Your task to perform on an android device: open device folders in google photos Image 0: 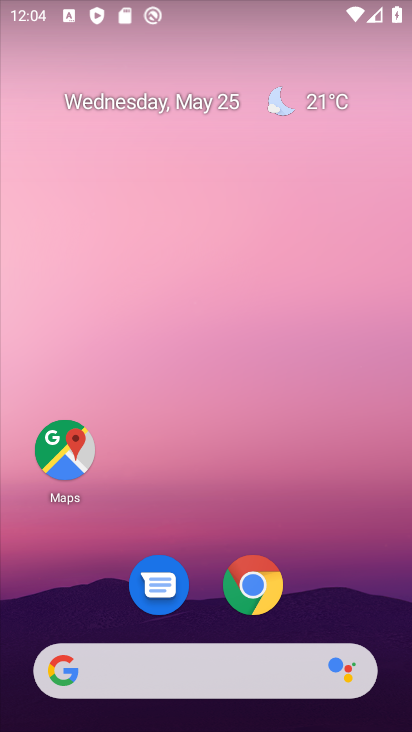
Step 0: drag from (208, 508) to (240, 3)
Your task to perform on an android device: open device folders in google photos Image 1: 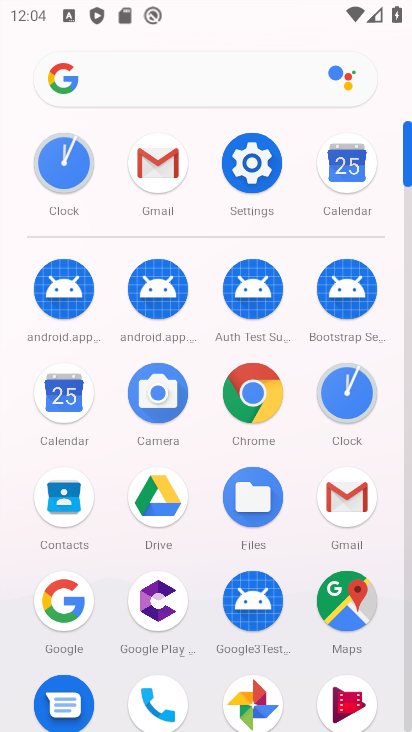
Step 1: drag from (289, 550) to (310, 315)
Your task to perform on an android device: open device folders in google photos Image 2: 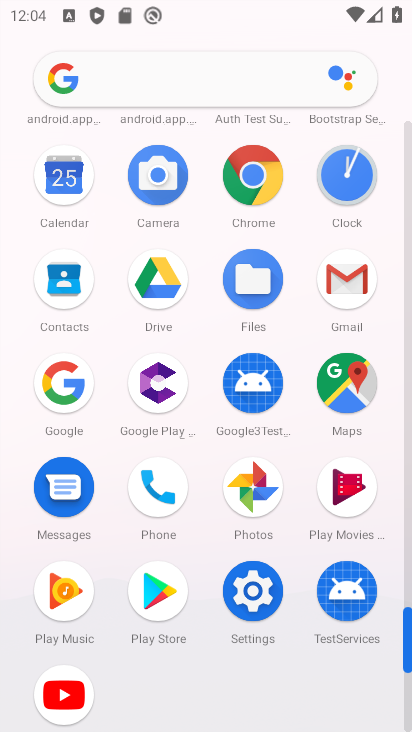
Step 2: click (267, 469)
Your task to perform on an android device: open device folders in google photos Image 3: 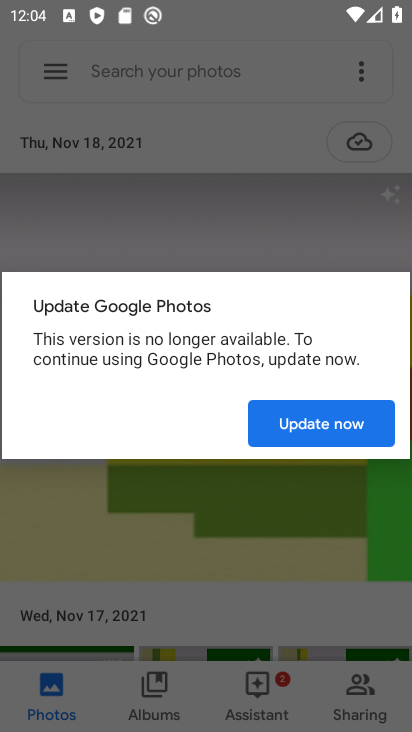
Step 3: click (292, 421)
Your task to perform on an android device: open device folders in google photos Image 4: 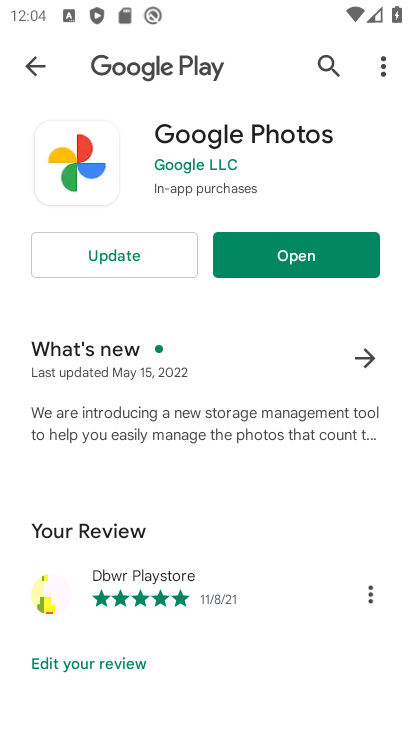
Step 4: click (318, 260)
Your task to perform on an android device: open device folders in google photos Image 5: 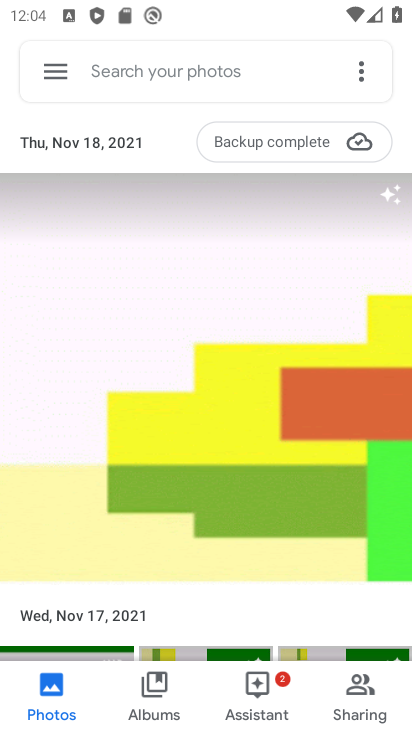
Step 5: click (59, 61)
Your task to perform on an android device: open device folders in google photos Image 6: 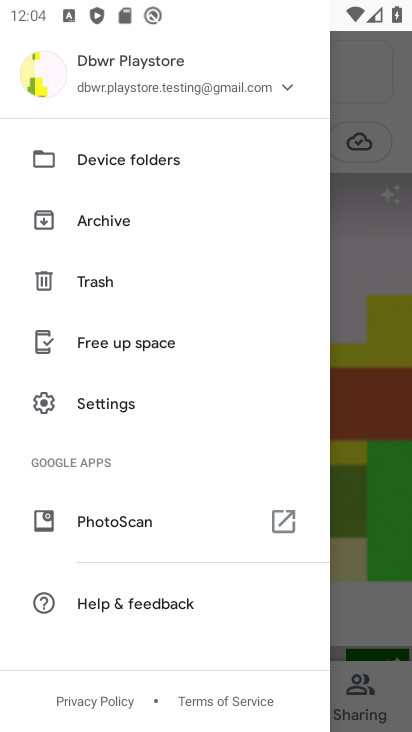
Step 6: click (99, 154)
Your task to perform on an android device: open device folders in google photos Image 7: 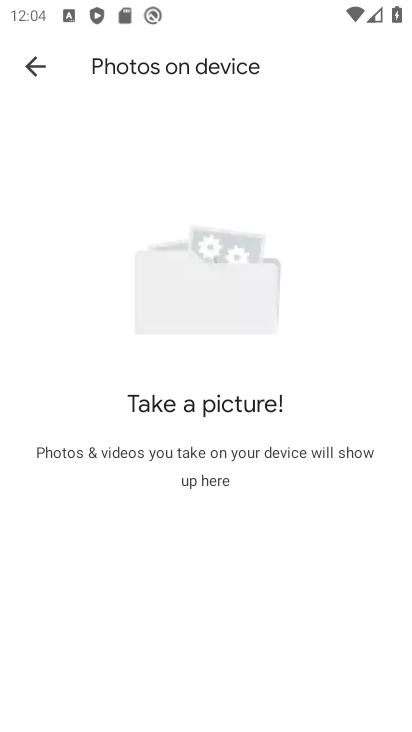
Step 7: task complete